Your task to perform on an android device: Show me popular games on the Play Store Image 0: 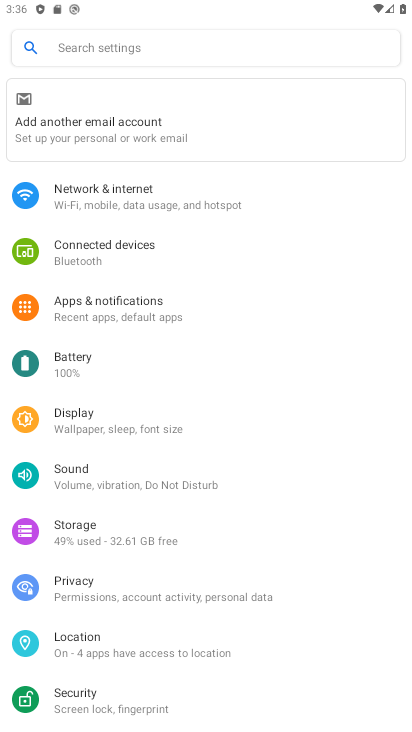
Step 0: press home button
Your task to perform on an android device: Show me popular games on the Play Store Image 1: 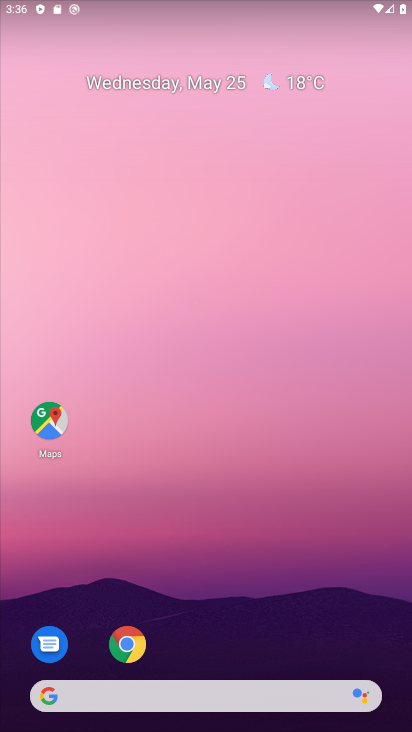
Step 1: drag from (224, 605) to (208, 208)
Your task to perform on an android device: Show me popular games on the Play Store Image 2: 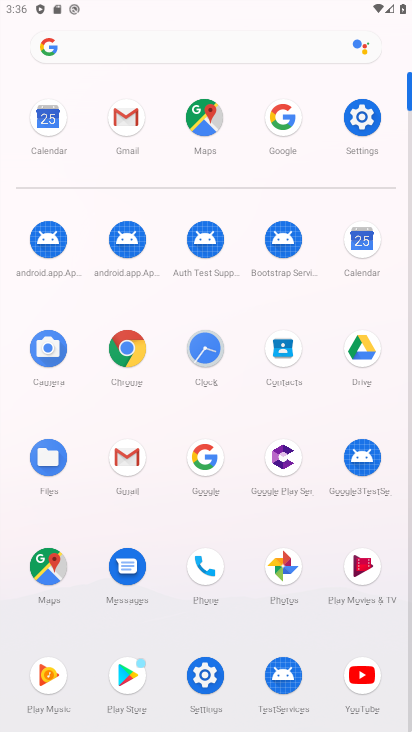
Step 2: click (126, 674)
Your task to perform on an android device: Show me popular games on the Play Store Image 3: 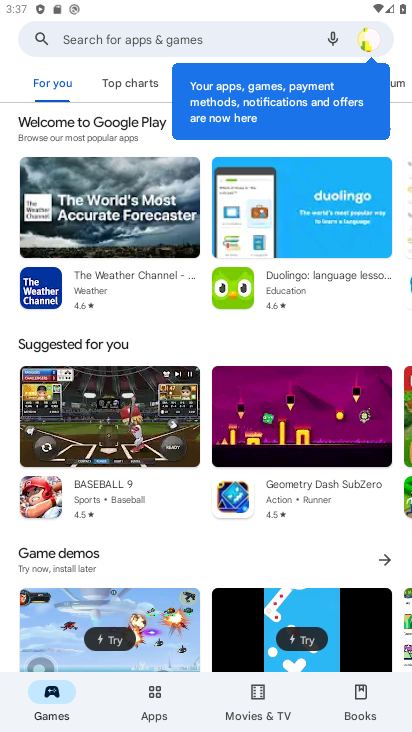
Step 3: click (148, 40)
Your task to perform on an android device: Show me popular games on the Play Store Image 4: 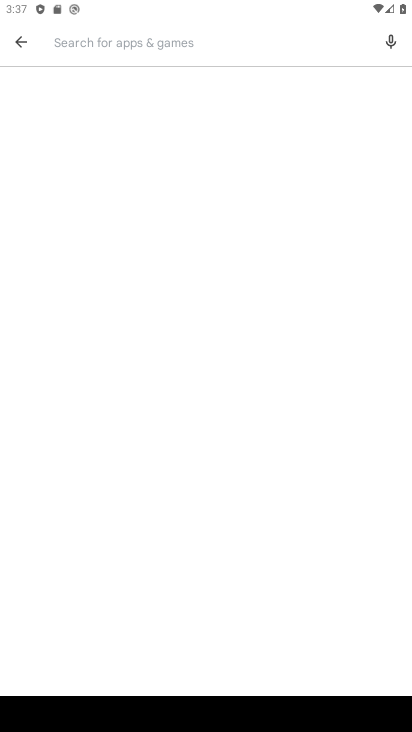
Step 4: type "popular games"
Your task to perform on an android device: Show me popular games on the Play Store Image 5: 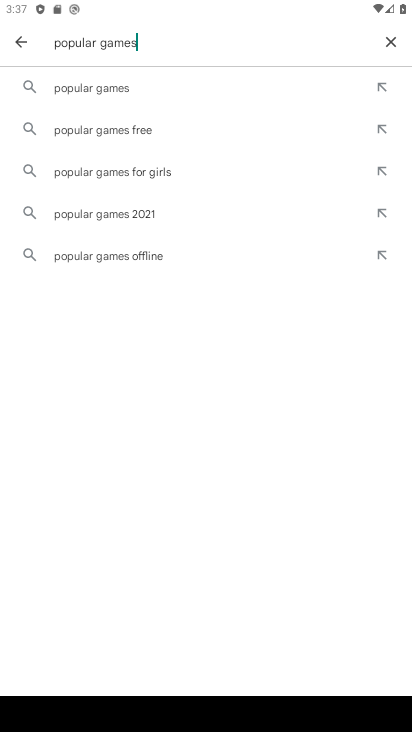
Step 5: click (98, 95)
Your task to perform on an android device: Show me popular games on the Play Store Image 6: 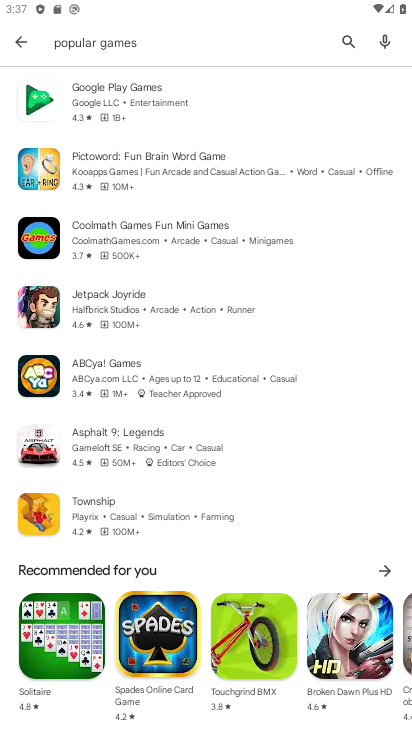
Step 6: task complete